Your task to perform on an android device: delete the emails in spam in the gmail app Image 0: 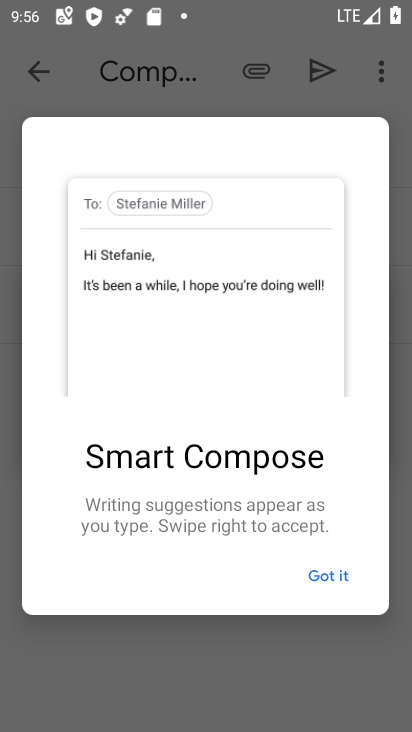
Step 0: press home button
Your task to perform on an android device: delete the emails in spam in the gmail app Image 1: 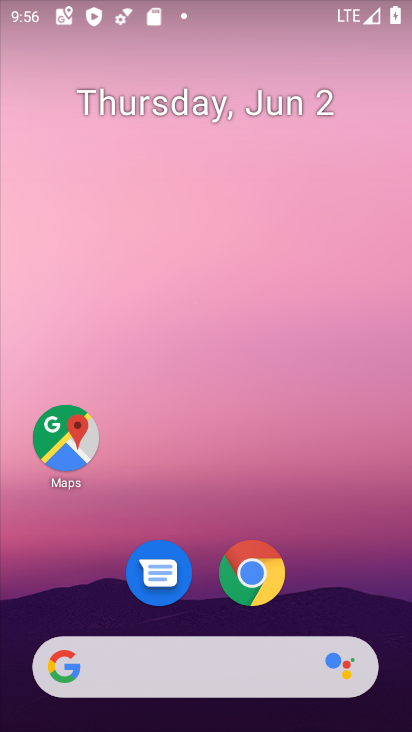
Step 1: drag from (335, 566) to (263, 30)
Your task to perform on an android device: delete the emails in spam in the gmail app Image 2: 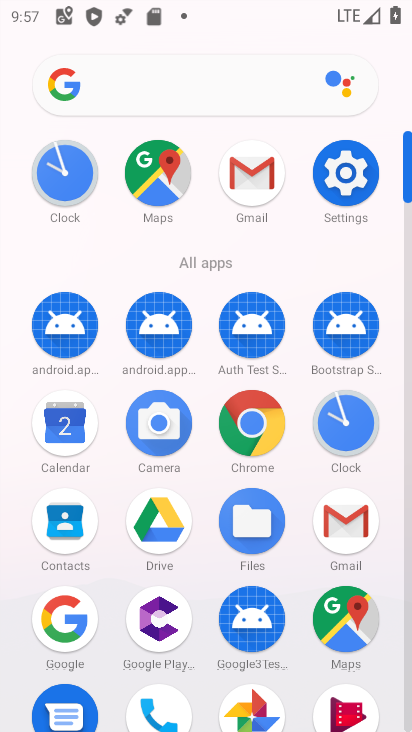
Step 2: click (244, 175)
Your task to perform on an android device: delete the emails in spam in the gmail app Image 3: 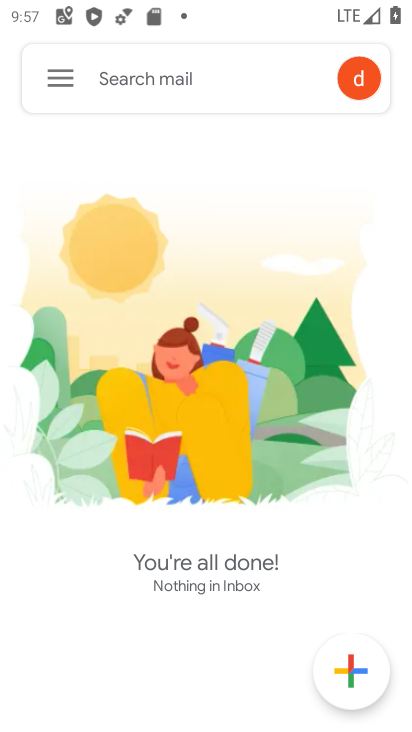
Step 3: click (52, 84)
Your task to perform on an android device: delete the emails in spam in the gmail app Image 4: 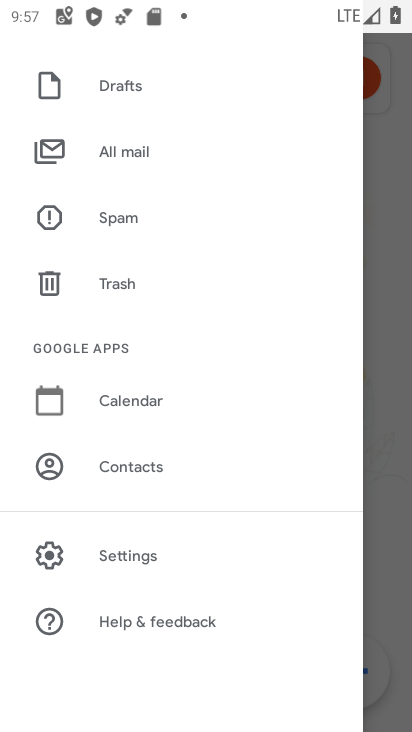
Step 4: click (141, 155)
Your task to perform on an android device: delete the emails in spam in the gmail app Image 5: 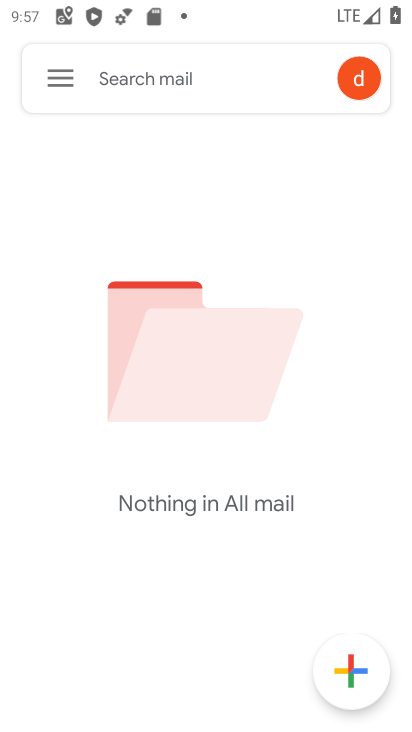
Step 5: click (58, 65)
Your task to perform on an android device: delete the emails in spam in the gmail app Image 6: 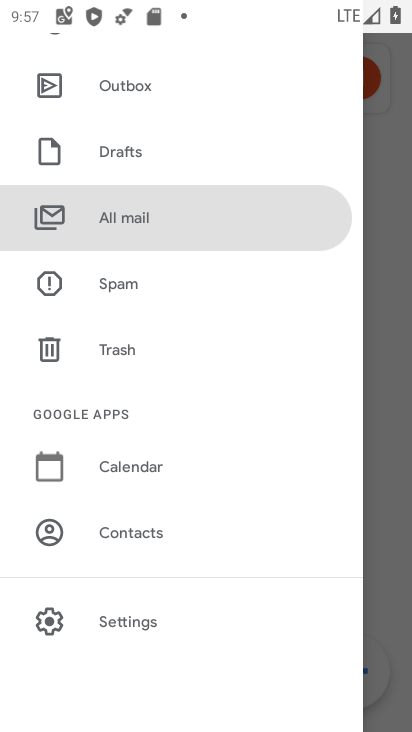
Step 6: click (124, 290)
Your task to perform on an android device: delete the emails in spam in the gmail app Image 7: 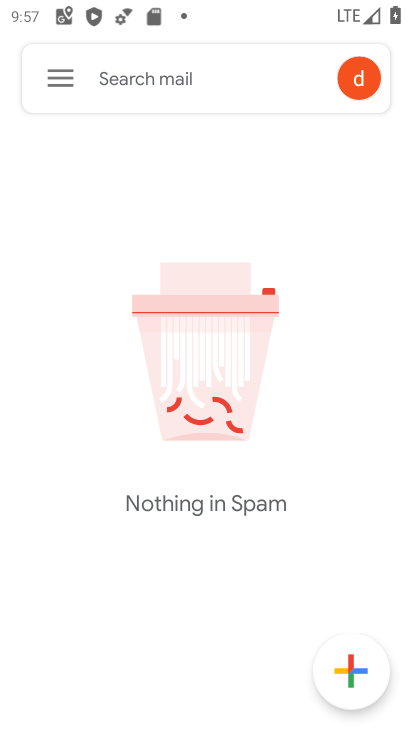
Step 7: task complete